Your task to perform on an android device: turn off data saver in the chrome app Image 0: 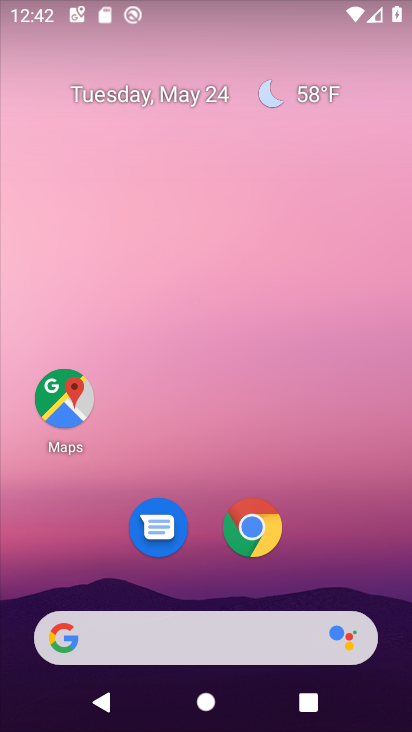
Step 0: drag from (390, 609) to (271, 71)
Your task to perform on an android device: turn off data saver in the chrome app Image 1: 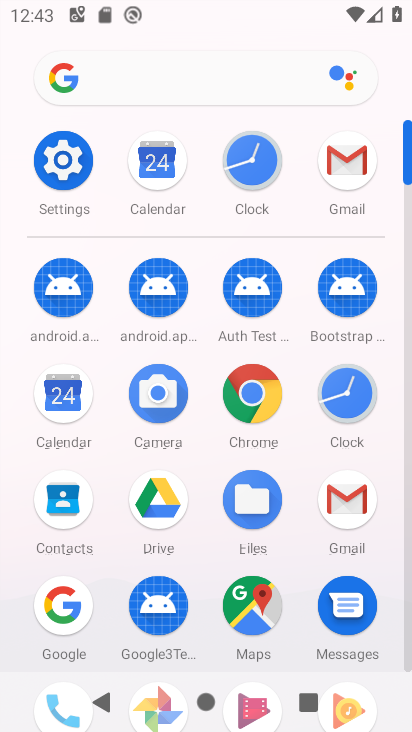
Step 1: click (242, 412)
Your task to perform on an android device: turn off data saver in the chrome app Image 2: 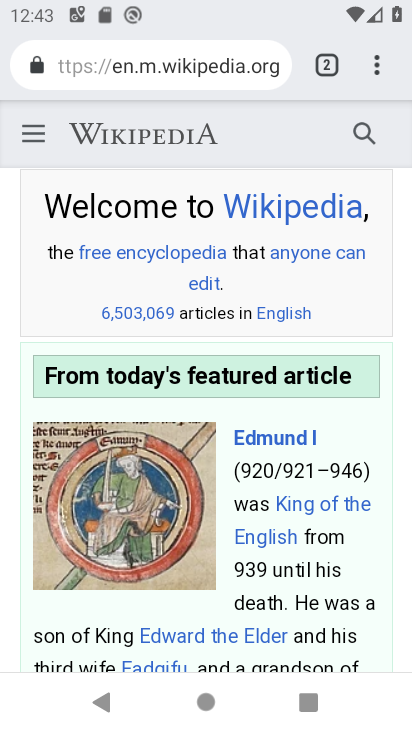
Step 2: click (373, 73)
Your task to perform on an android device: turn off data saver in the chrome app Image 3: 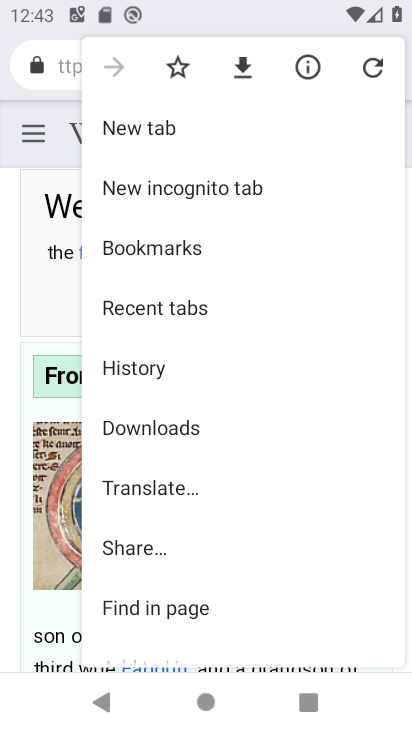
Step 3: drag from (242, 590) to (168, 169)
Your task to perform on an android device: turn off data saver in the chrome app Image 4: 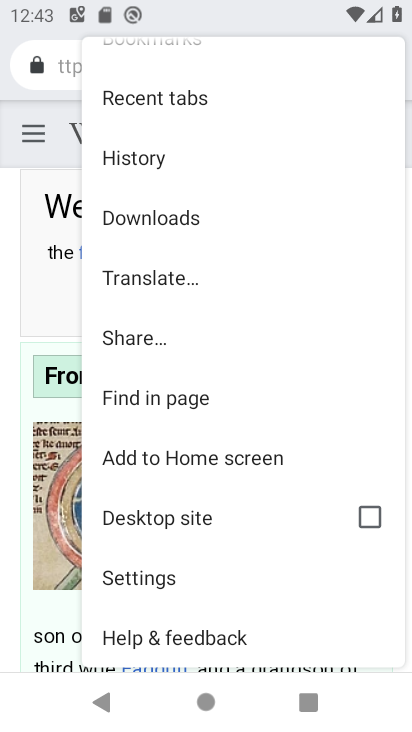
Step 4: click (160, 574)
Your task to perform on an android device: turn off data saver in the chrome app Image 5: 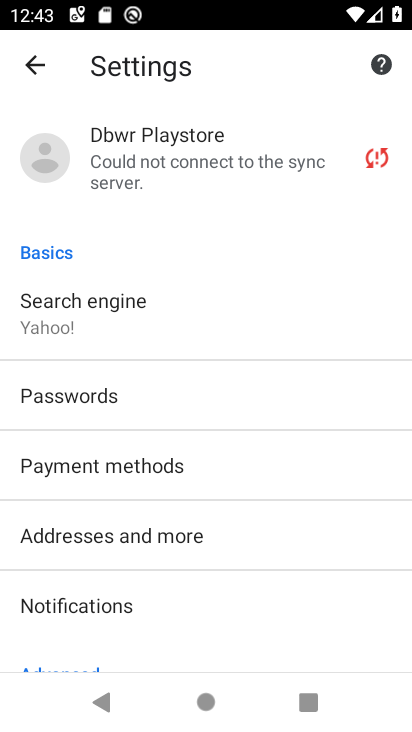
Step 5: drag from (157, 634) to (117, 280)
Your task to perform on an android device: turn off data saver in the chrome app Image 6: 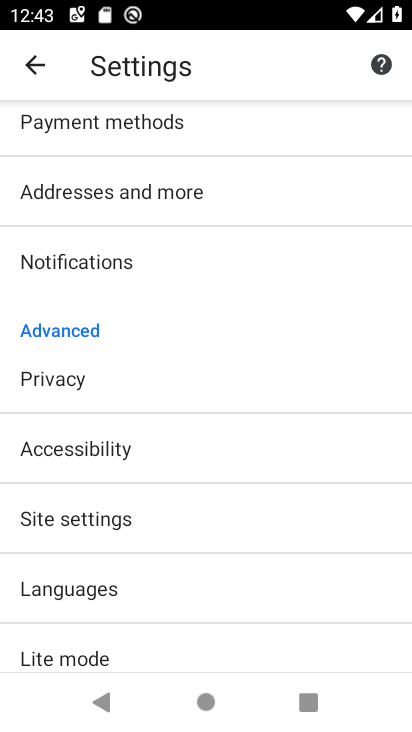
Step 6: click (162, 648)
Your task to perform on an android device: turn off data saver in the chrome app Image 7: 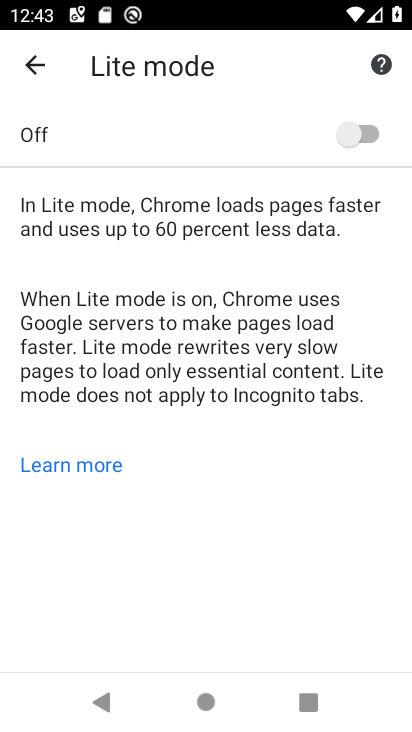
Step 7: task complete